Your task to perform on an android device: check out phone information Image 0: 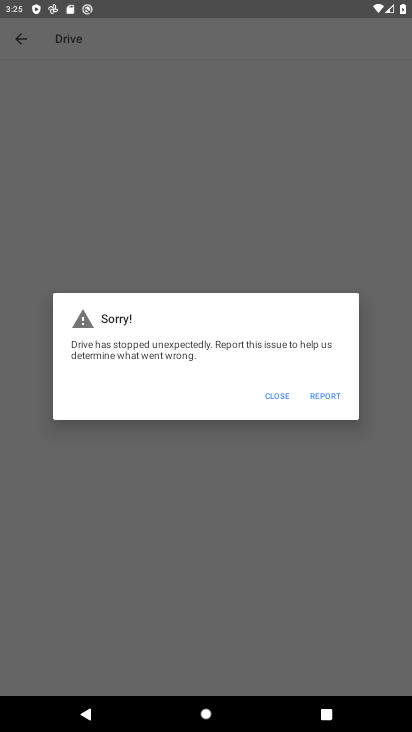
Step 0: press home button
Your task to perform on an android device: check out phone information Image 1: 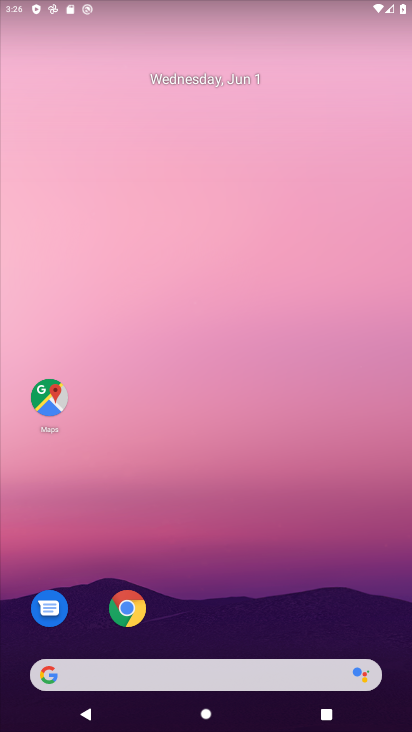
Step 1: drag from (233, 674) to (298, 238)
Your task to perform on an android device: check out phone information Image 2: 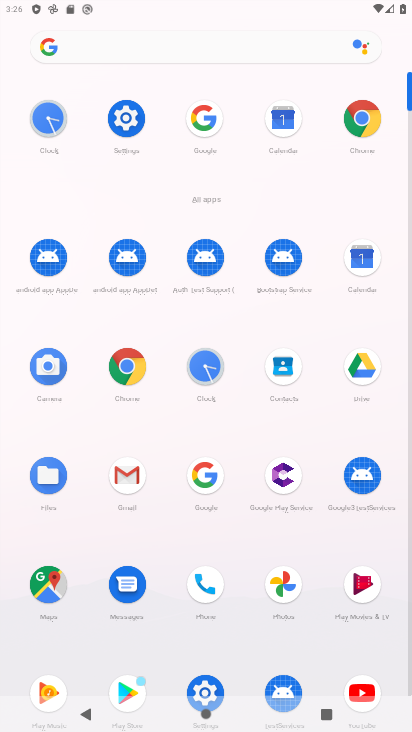
Step 2: click (125, 137)
Your task to perform on an android device: check out phone information Image 3: 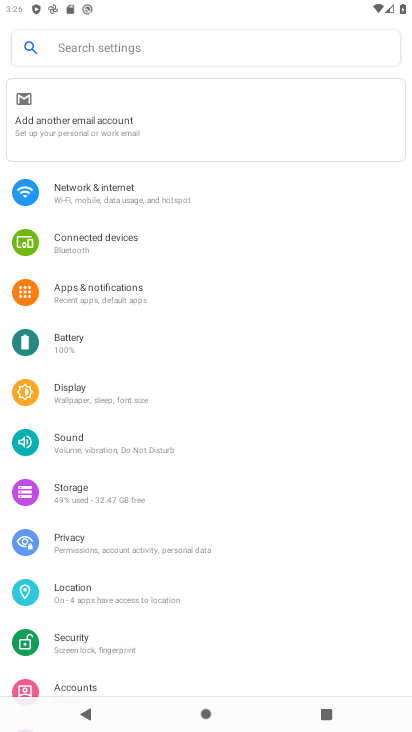
Step 3: drag from (98, 503) to (130, 13)
Your task to perform on an android device: check out phone information Image 4: 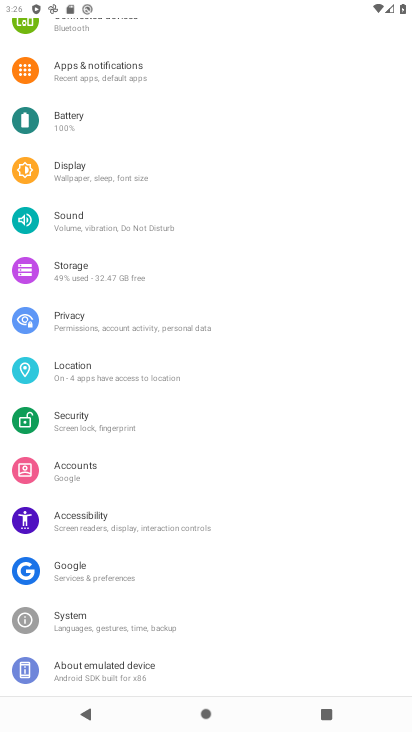
Step 4: click (99, 671)
Your task to perform on an android device: check out phone information Image 5: 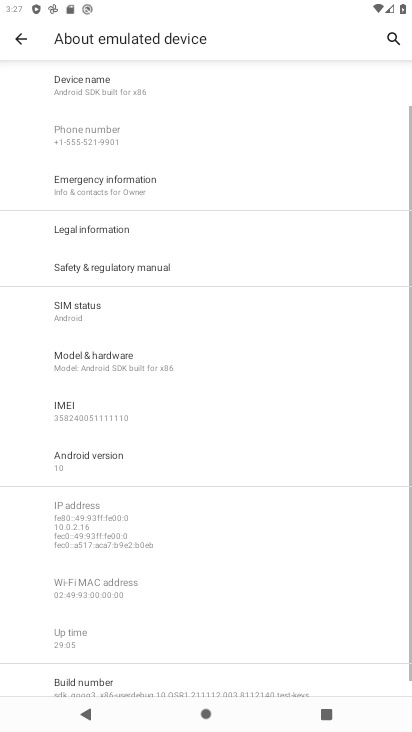
Step 5: task complete